Your task to perform on an android device: turn off javascript in the chrome app Image 0: 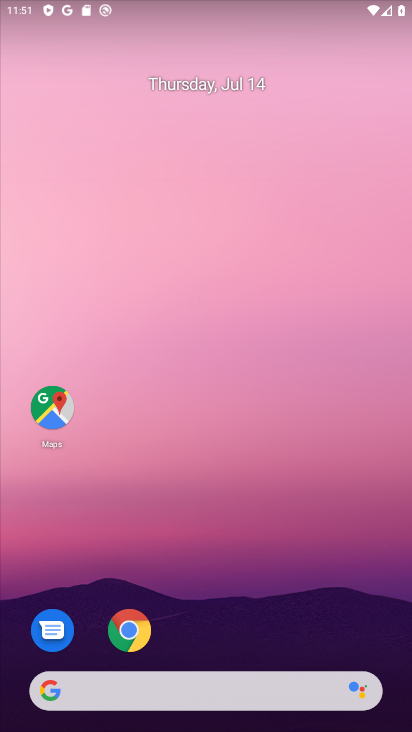
Step 0: drag from (208, 544) to (306, 27)
Your task to perform on an android device: turn off javascript in the chrome app Image 1: 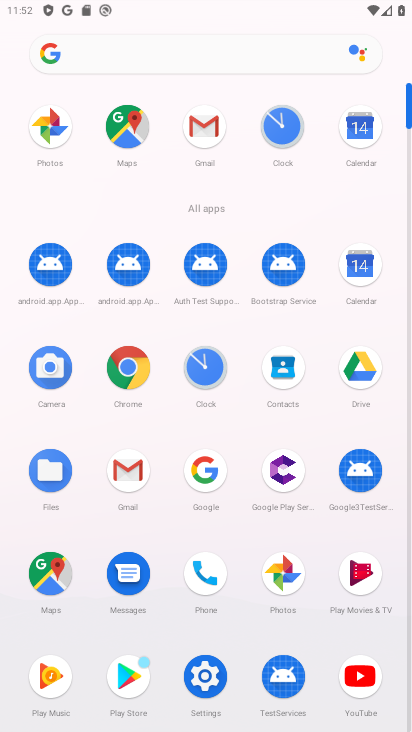
Step 1: click (126, 377)
Your task to perform on an android device: turn off javascript in the chrome app Image 2: 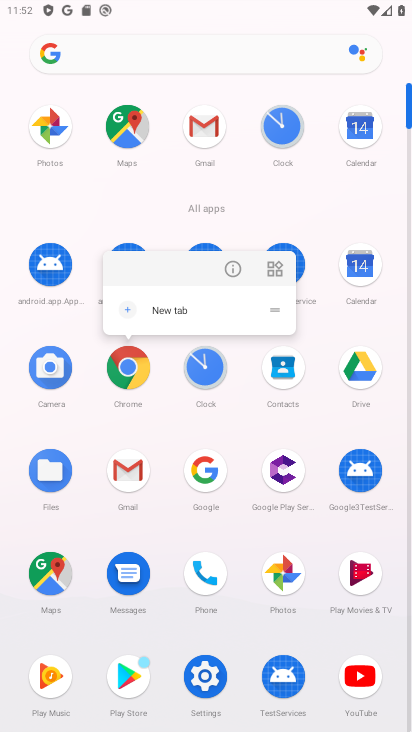
Step 2: click (237, 260)
Your task to perform on an android device: turn off javascript in the chrome app Image 3: 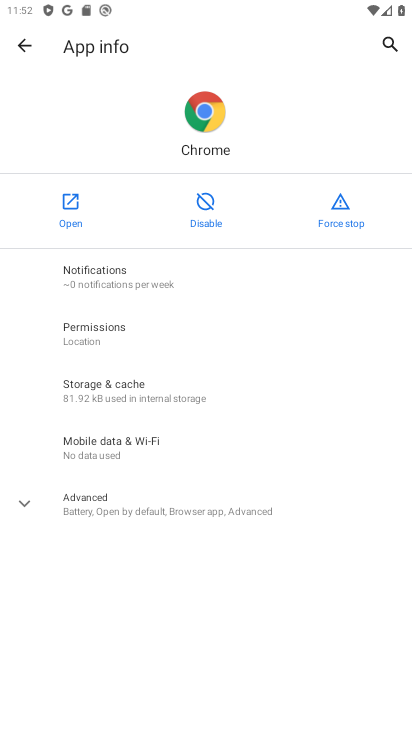
Step 3: click (61, 206)
Your task to perform on an android device: turn off javascript in the chrome app Image 4: 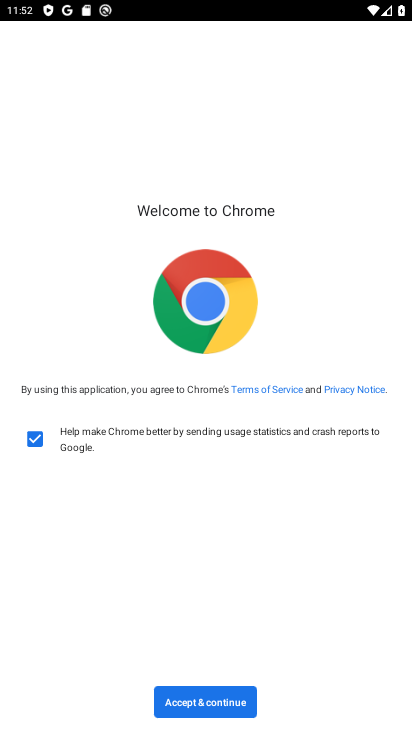
Step 4: click (299, 398)
Your task to perform on an android device: turn off javascript in the chrome app Image 5: 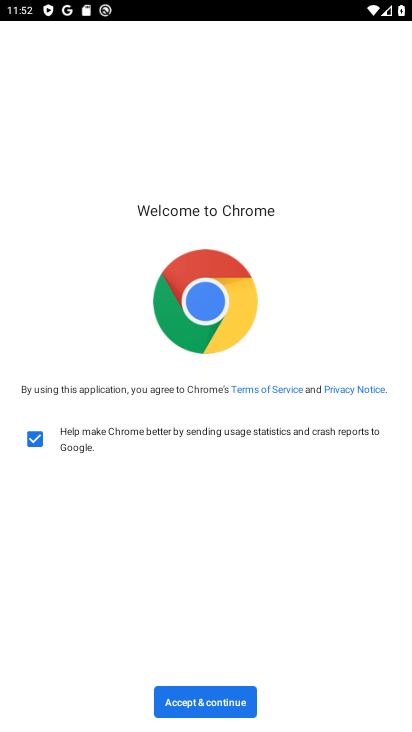
Step 5: click (184, 697)
Your task to perform on an android device: turn off javascript in the chrome app Image 6: 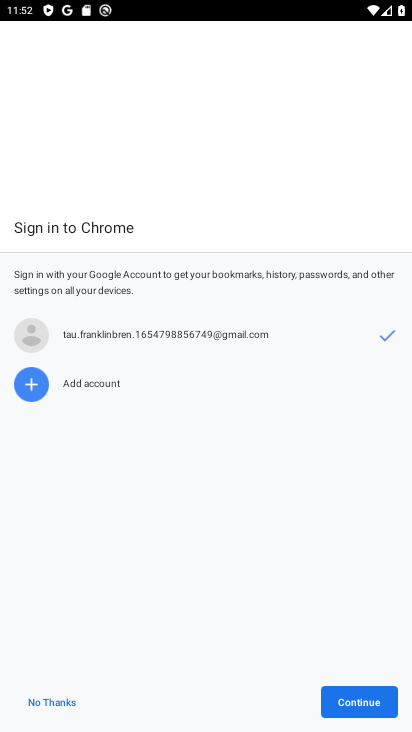
Step 6: click (349, 707)
Your task to perform on an android device: turn off javascript in the chrome app Image 7: 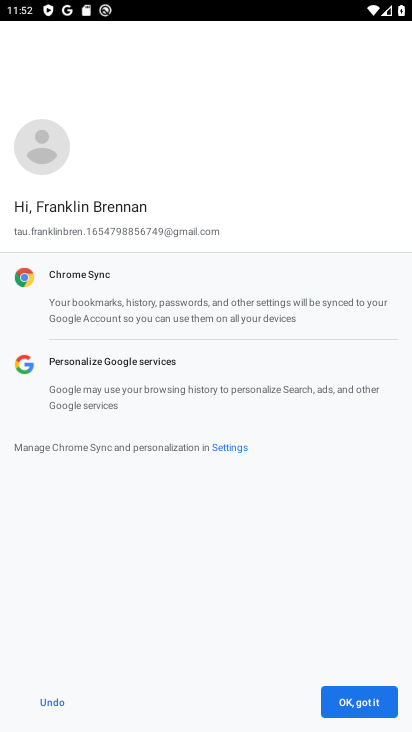
Step 7: click (344, 704)
Your task to perform on an android device: turn off javascript in the chrome app Image 8: 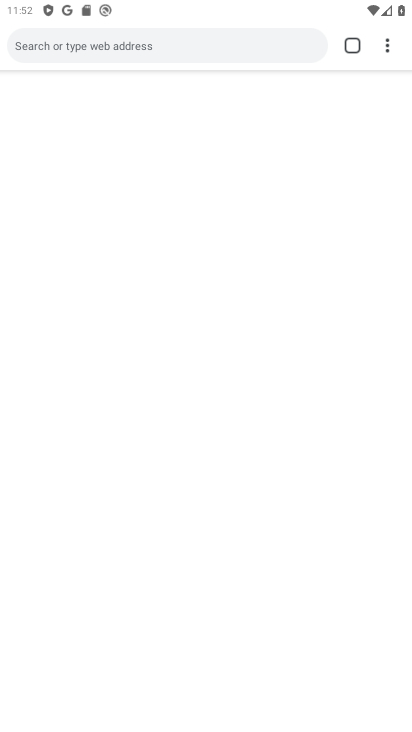
Step 8: drag from (237, 486) to (275, 244)
Your task to perform on an android device: turn off javascript in the chrome app Image 9: 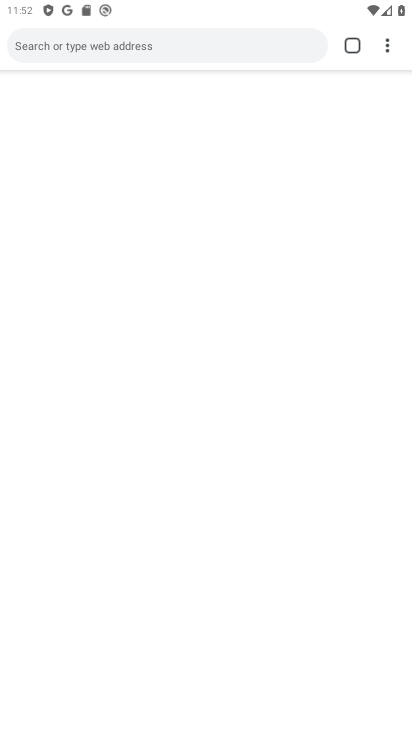
Step 9: drag from (152, 461) to (264, 196)
Your task to perform on an android device: turn off javascript in the chrome app Image 10: 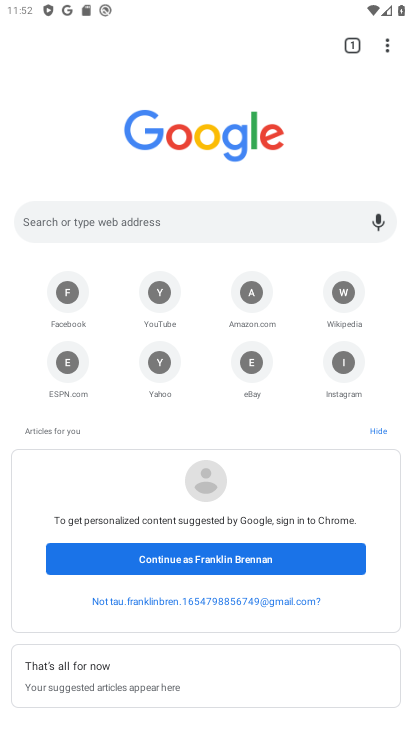
Step 10: drag from (369, 40) to (403, 582)
Your task to perform on an android device: turn off javascript in the chrome app Image 11: 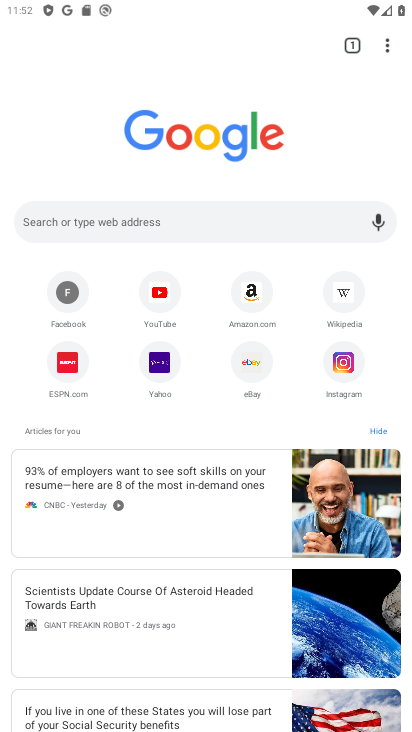
Step 11: click (388, 53)
Your task to perform on an android device: turn off javascript in the chrome app Image 12: 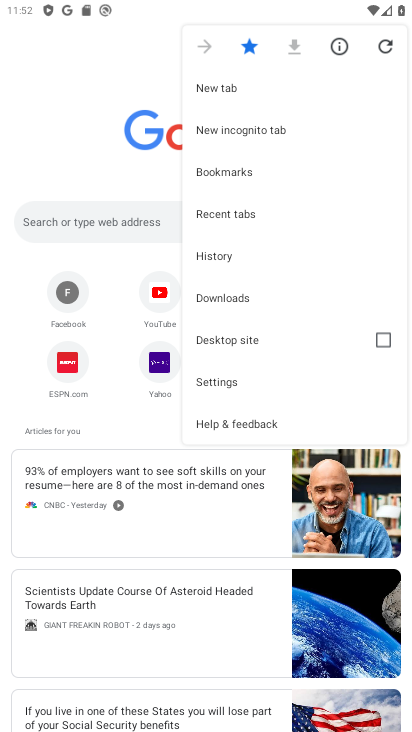
Step 12: click (215, 367)
Your task to perform on an android device: turn off javascript in the chrome app Image 13: 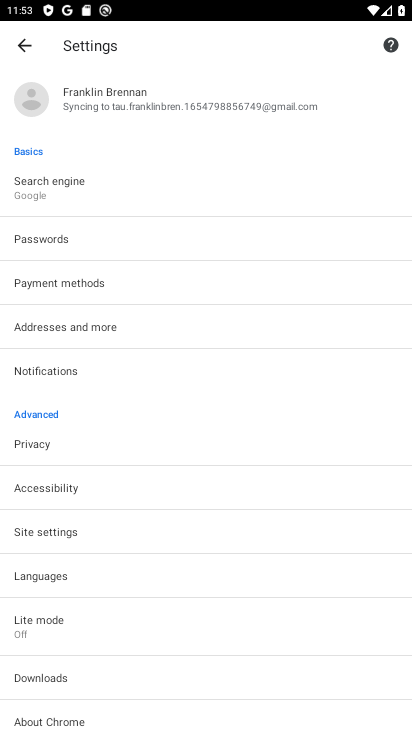
Step 13: click (72, 535)
Your task to perform on an android device: turn off javascript in the chrome app Image 14: 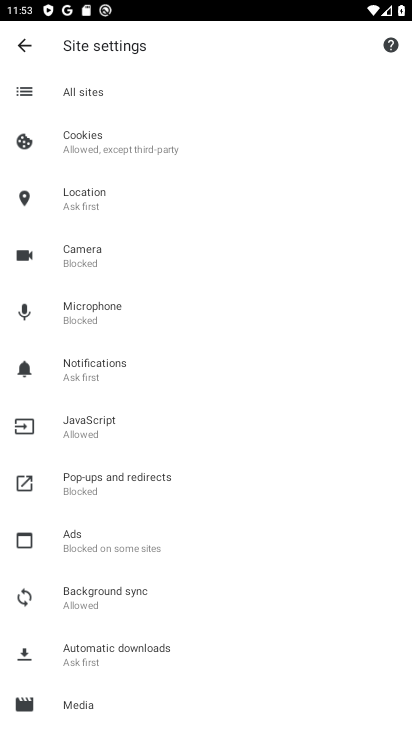
Step 14: click (79, 420)
Your task to perform on an android device: turn off javascript in the chrome app Image 15: 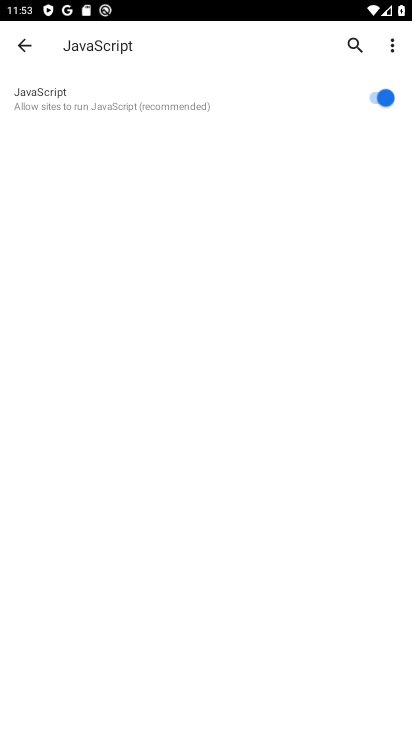
Step 15: click (387, 94)
Your task to perform on an android device: turn off javascript in the chrome app Image 16: 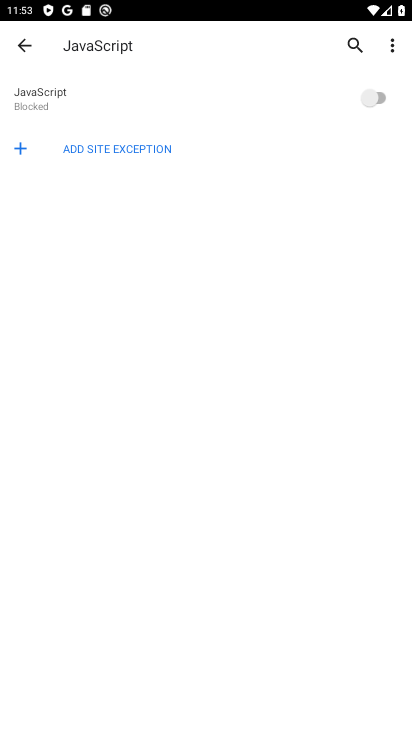
Step 16: task complete